Your task to perform on an android device: Search for Mexican restaurants on Maps Image 0: 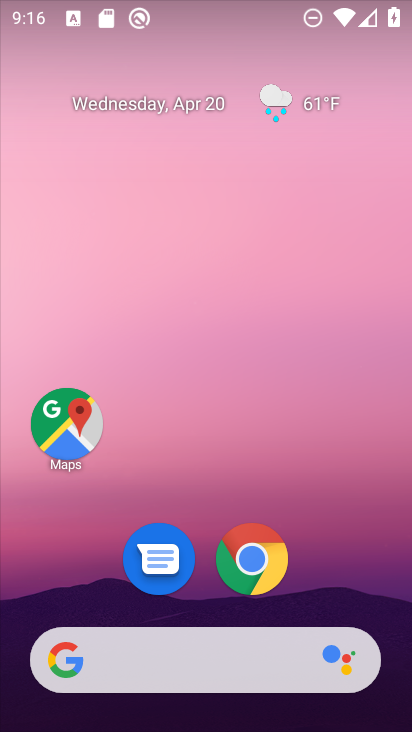
Step 0: click (73, 450)
Your task to perform on an android device: Search for Mexican restaurants on Maps Image 1: 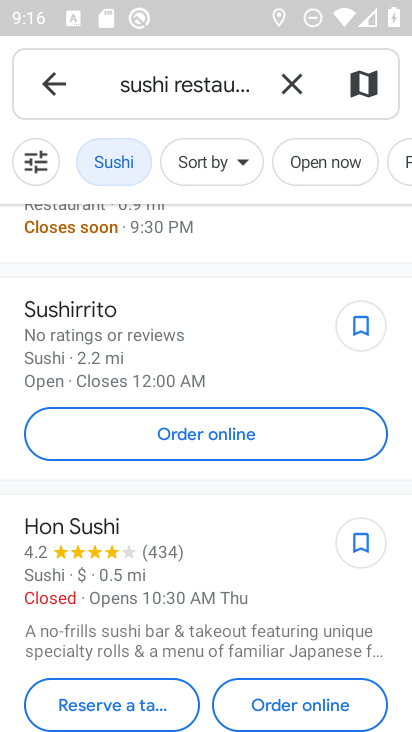
Step 1: click (292, 86)
Your task to perform on an android device: Search for Mexican restaurants on Maps Image 2: 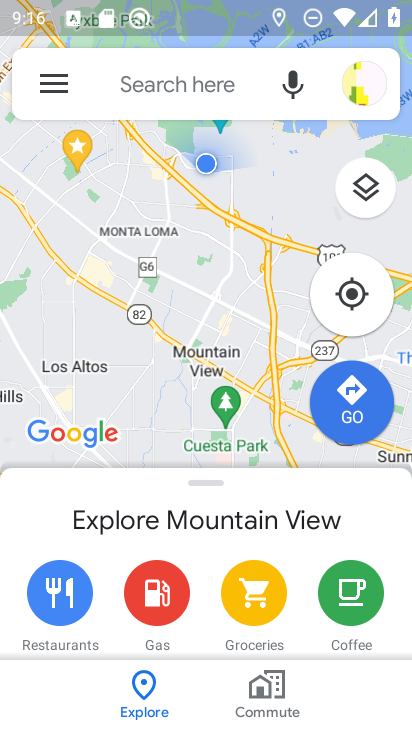
Step 2: click (129, 88)
Your task to perform on an android device: Search for Mexican restaurants on Maps Image 3: 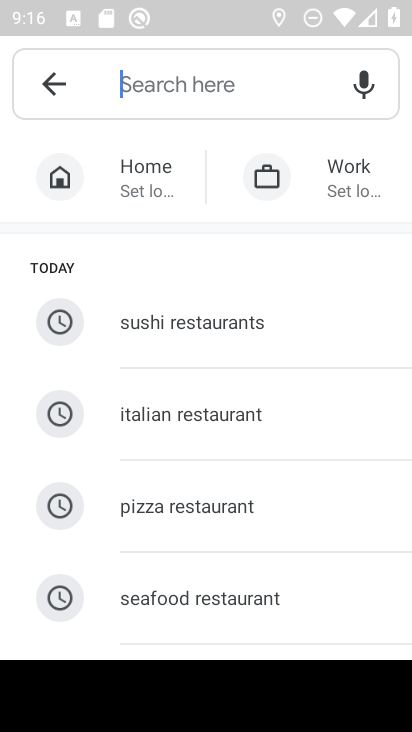
Step 3: type "mexican restaurants"
Your task to perform on an android device: Search for Mexican restaurants on Maps Image 4: 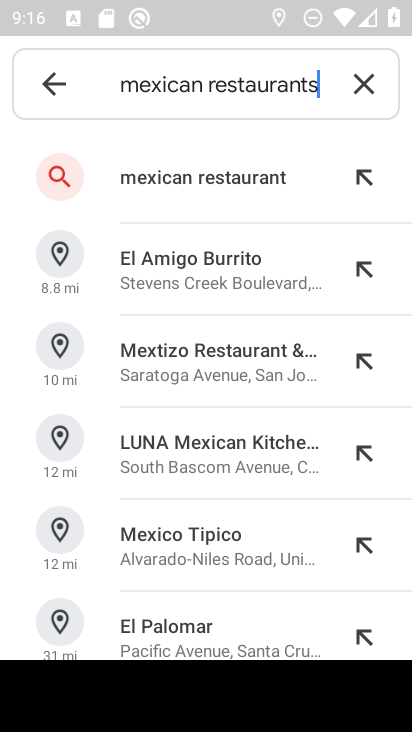
Step 4: click (182, 177)
Your task to perform on an android device: Search for Mexican restaurants on Maps Image 5: 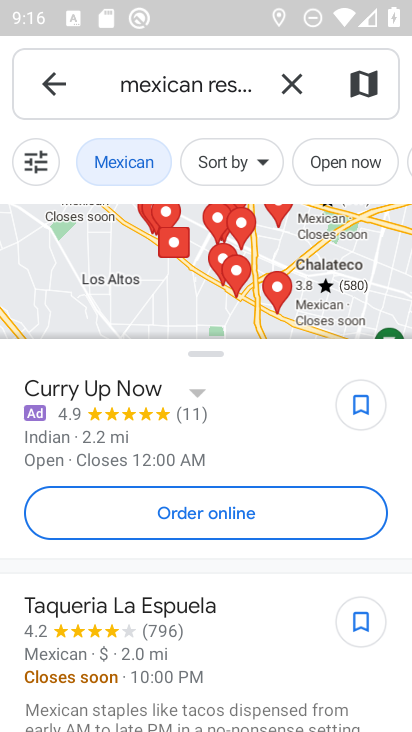
Step 5: task complete